Your task to perform on an android device: Go to Reddit.com Image 0: 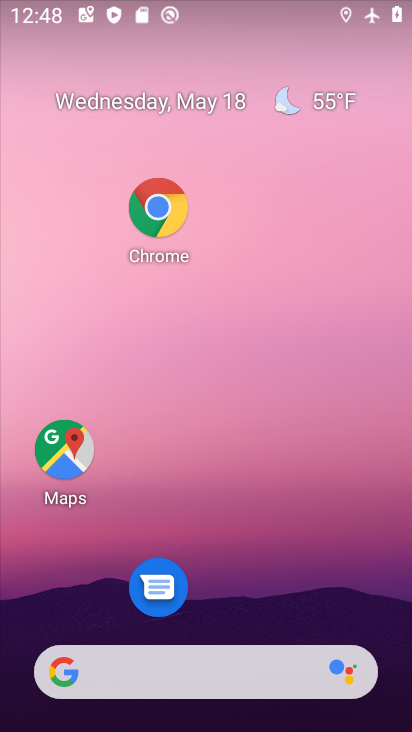
Step 0: click (155, 243)
Your task to perform on an android device: Go to Reddit.com Image 1: 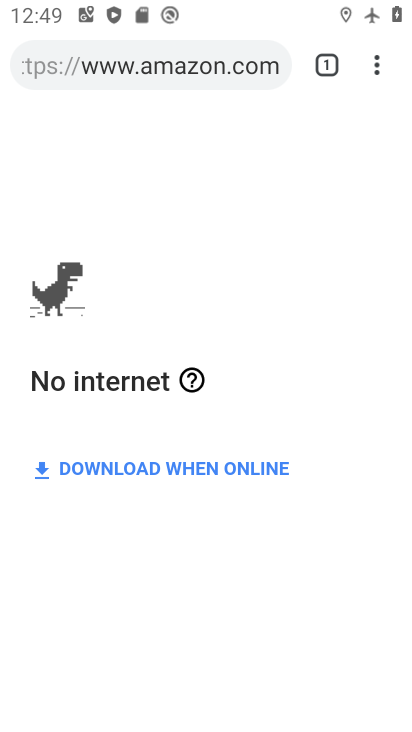
Step 1: click (190, 57)
Your task to perform on an android device: Go to Reddit.com Image 2: 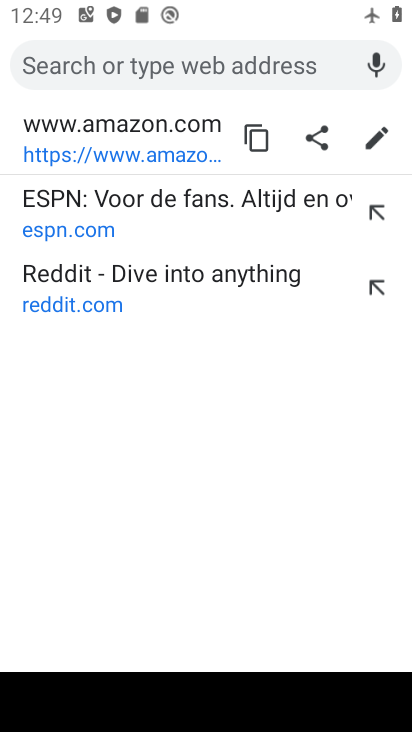
Step 2: type "www.reddit.com"
Your task to perform on an android device: Go to Reddit.com Image 3: 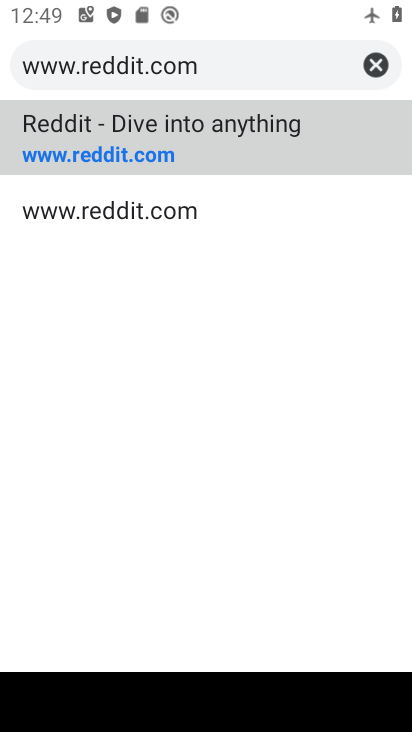
Step 3: click (135, 145)
Your task to perform on an android device: Go to Reddit.com Image 4: 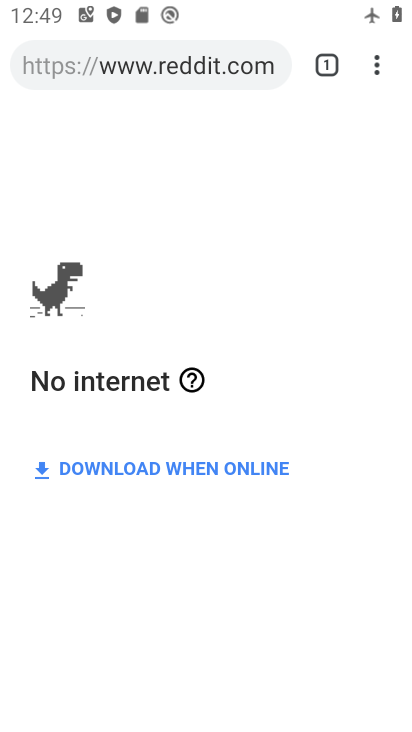
Step 4: task complete